Your task to perform on an android device: choose inbox layout in the gmail app Image 0: 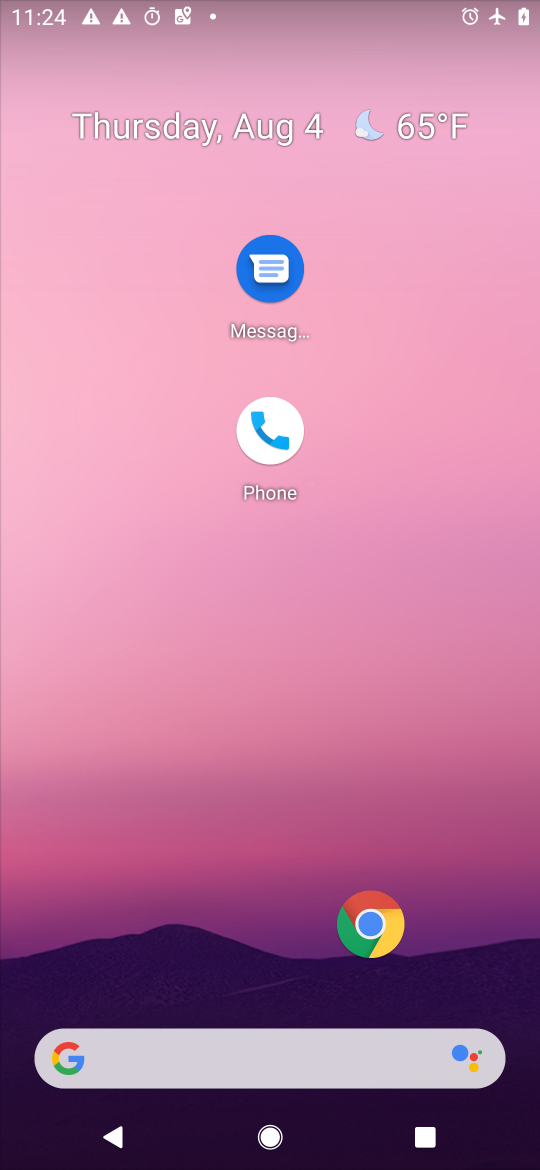
Step 0: click (358, 490)
Your task to perform on an android device: choose inbox layout in the gmail app Image 1: 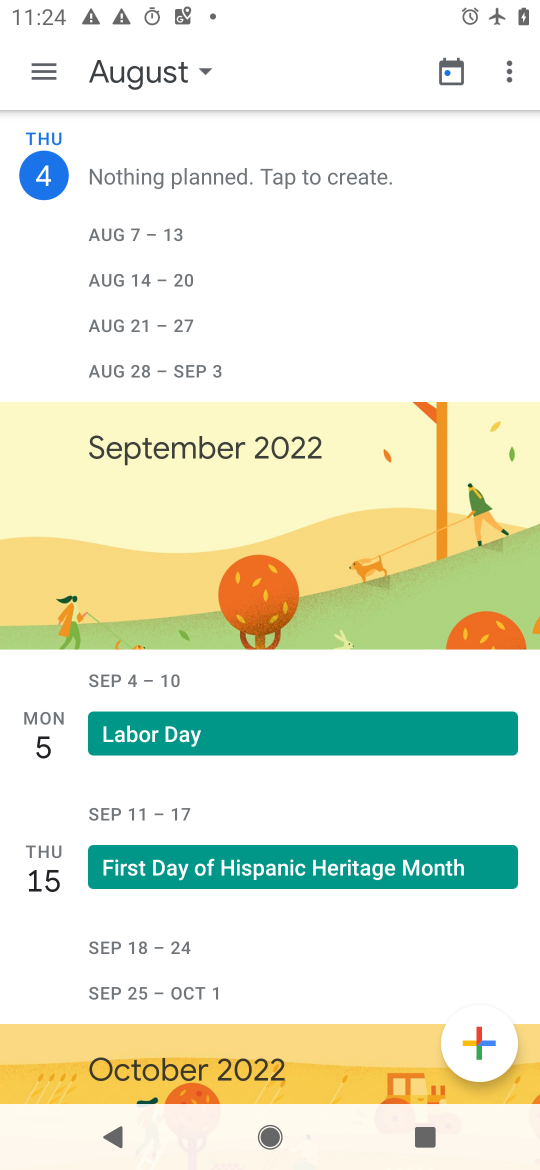
Step 1: drag from (356, 916) to (342, 360)
Your task to perform on an android device: choose inbox layout in the gmail app Image 2: 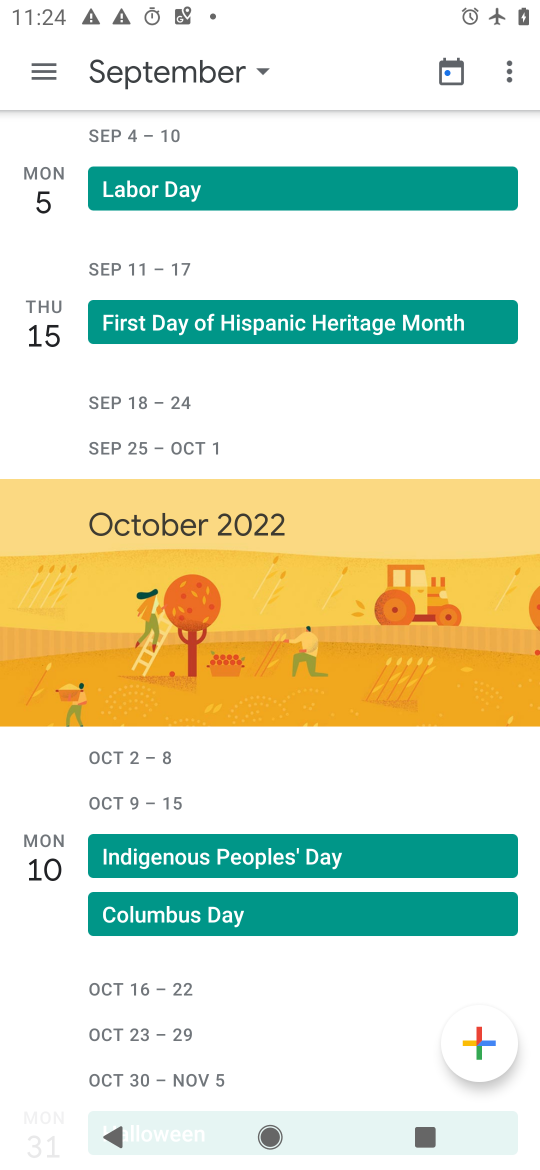
Step 2: drag from (262, 865) to (271, 362)
Your task to perform on an android device: choose inbox layout in the gmail app Image 3: 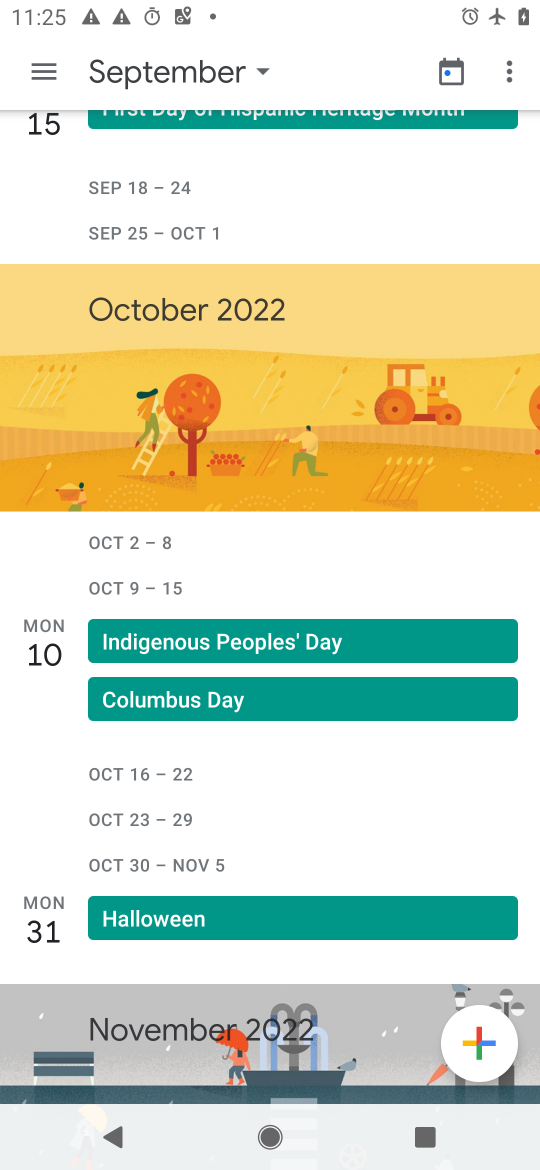
Step 3: drag from (287, 884) to (370, 236)
Your task to perform on an android device: choose inbox layout in the gmail app Image 4: 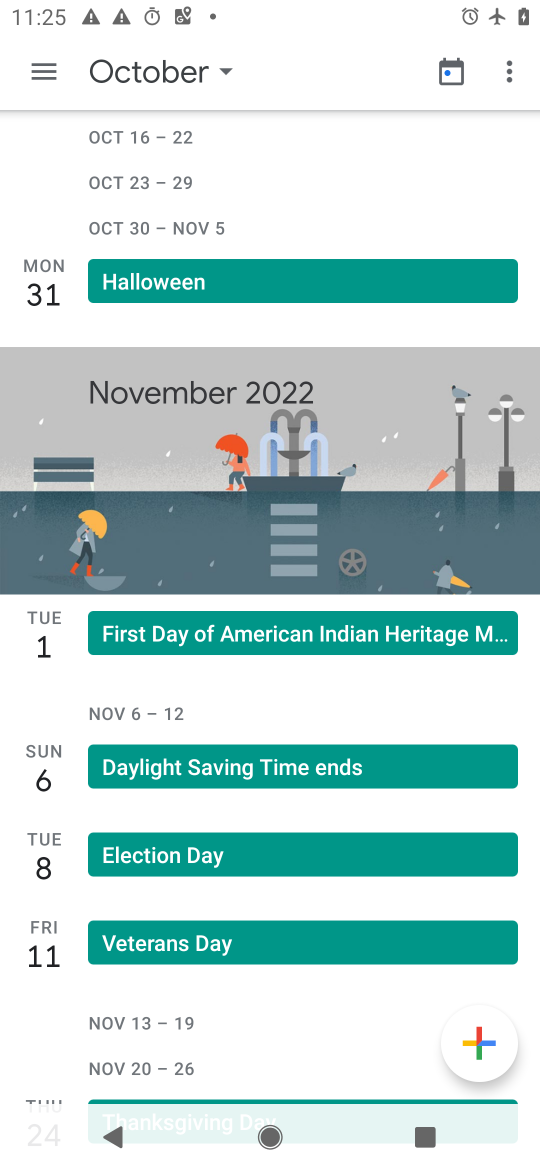
Step 4: press home button
Your task to perform on an android device: choose inbox layout in the gmail app Image 5: 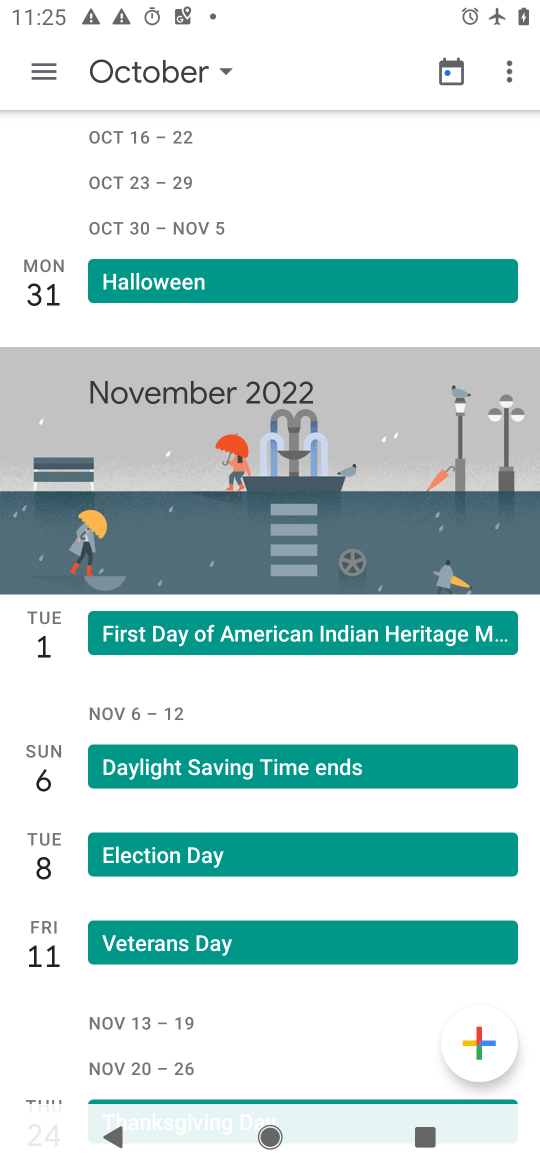
Step 5: press home button
Your task to perform on an android device: choose inbox layout in the gmail app Image 6: 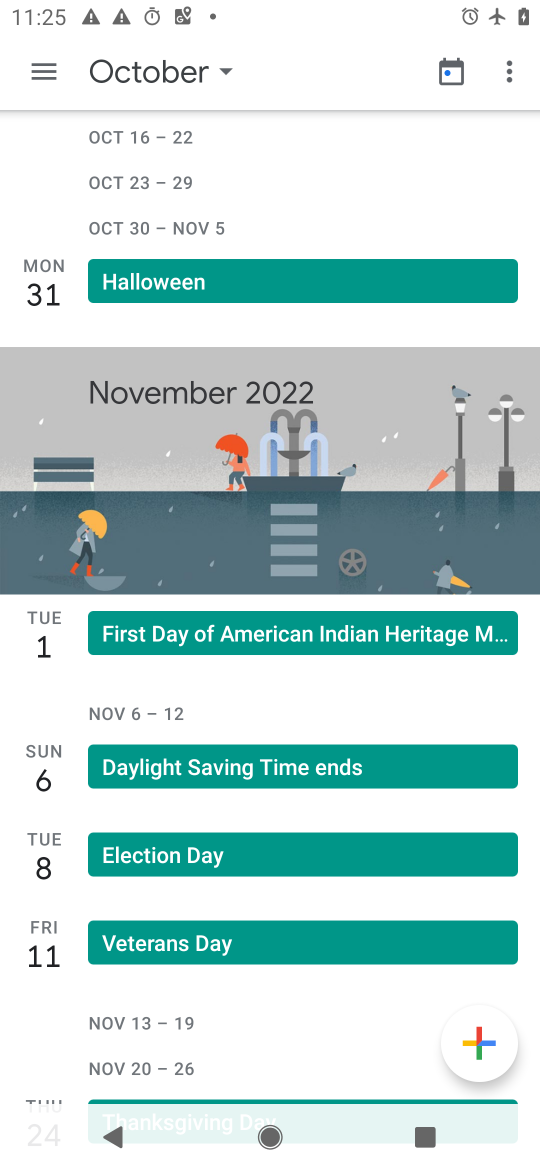
Step 6: click (335, 151)
Your task to perform on an android device: choose inbox layout in the gmail app Image 7: 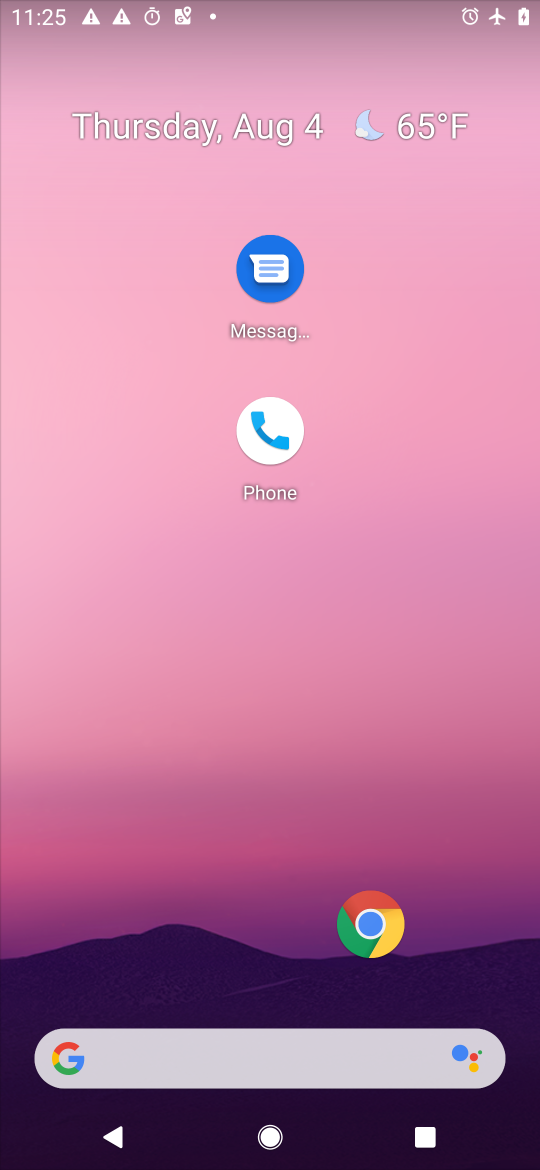
Step 7: drag from (250, 987) to (292, 317)
Your task to perform on an android device: choose inbox layout in the gmail app Image 8: 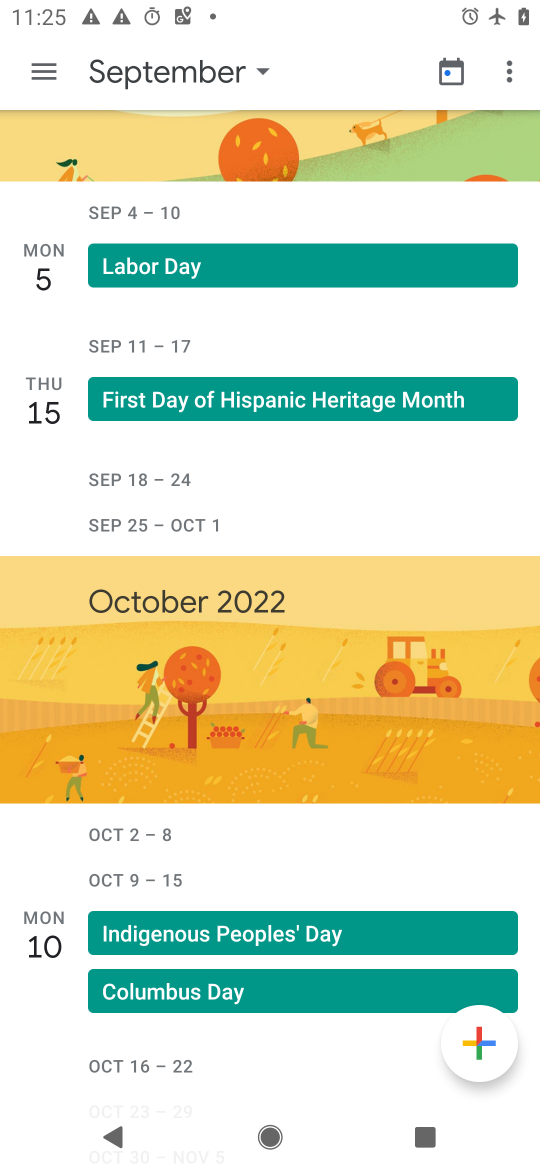
Step 8: press home button
Your task to perform on an android device: choose inbox layout in the gmail app Image 9: 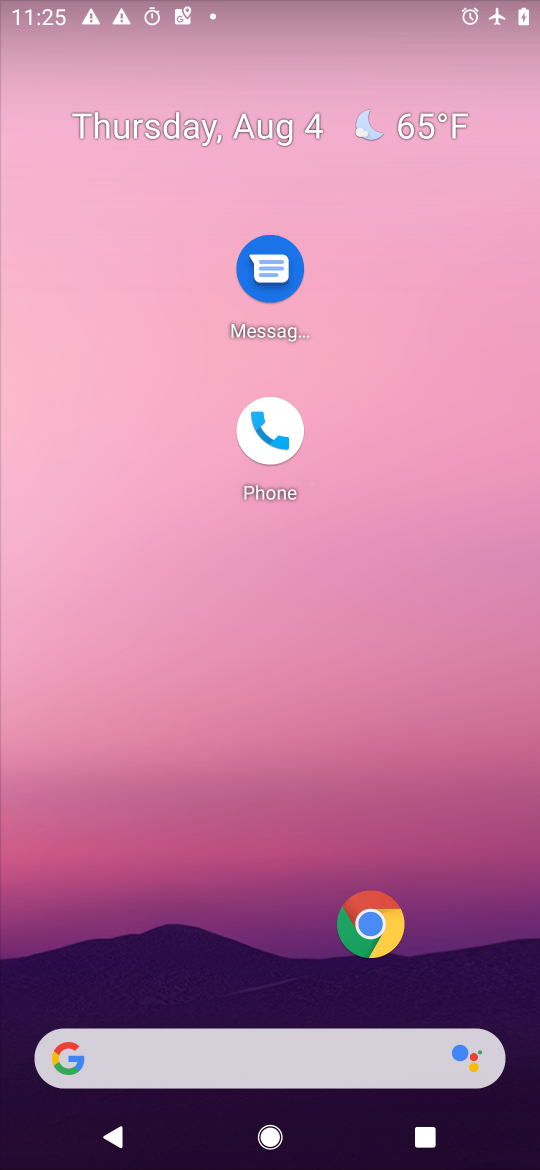
Step 9: drag from (257, 1007) to (422, 86)
Your task to perform on an android device: choose inbox layout in the gmail app Image 10: 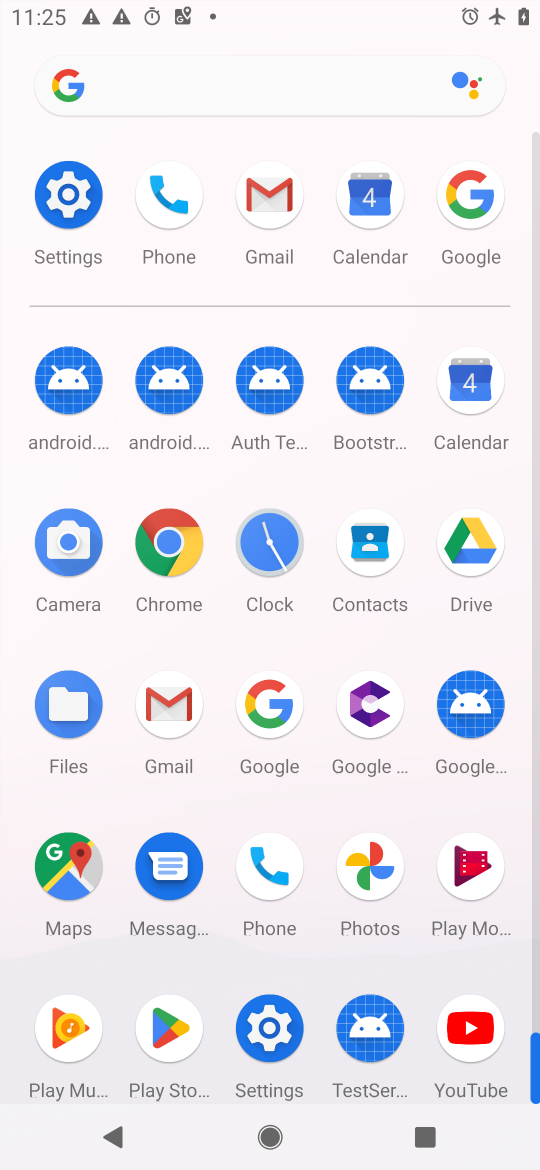
Step 10: click (257, 201)
Your task to perform on an android device: choose inbox layout in the gmail app Image 11: 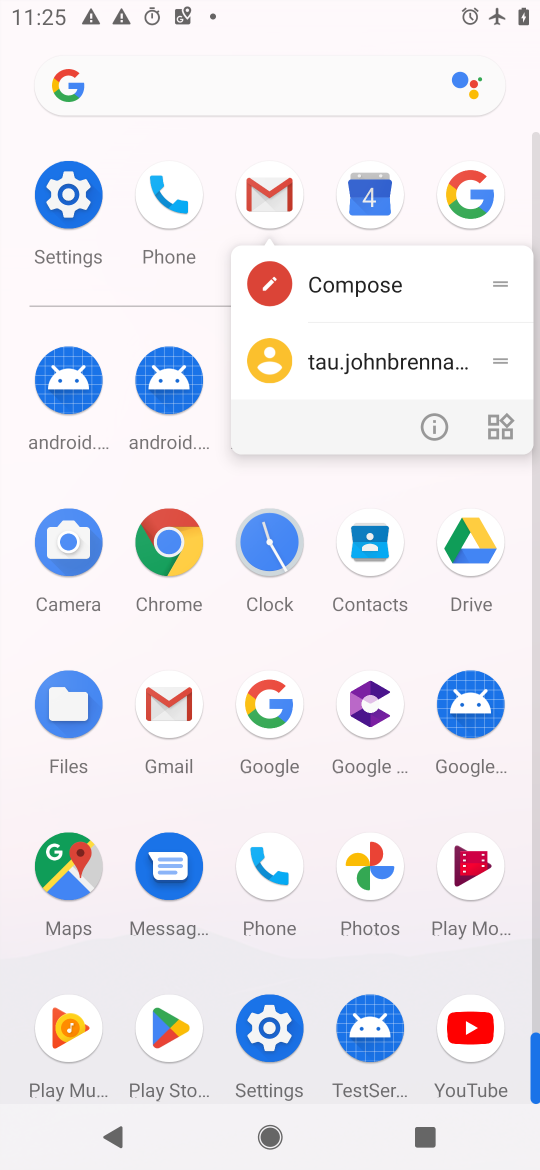
Step 11: click (428, 427)
Your task to perform on an android device: choose inbox layout in the gmail app Image 12: 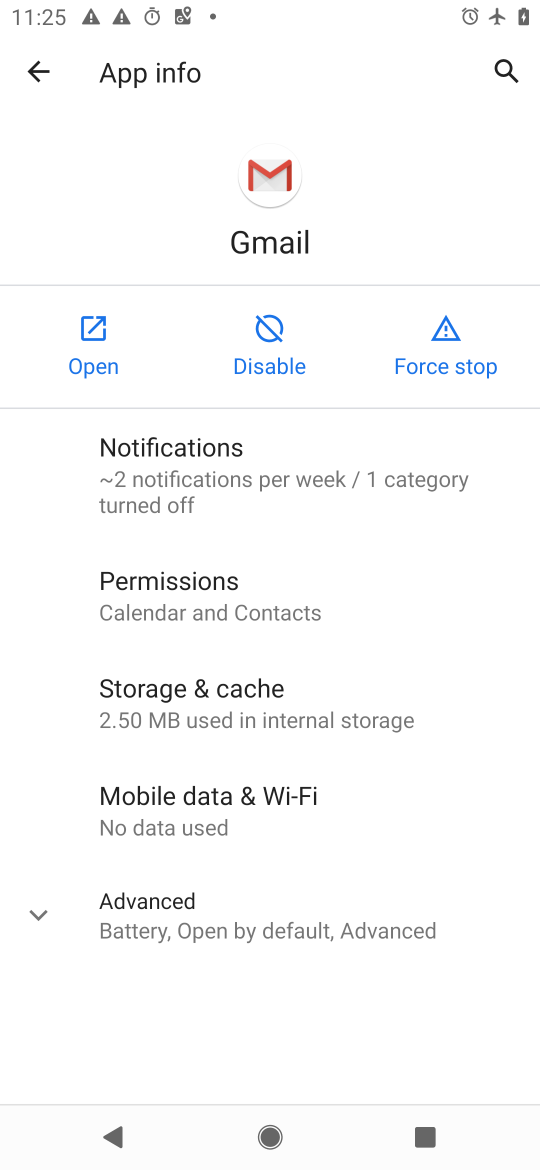
Step 12: click (88, 350)
Your task to perform on an android device: choose inbox layout in the gmail app Image 13: 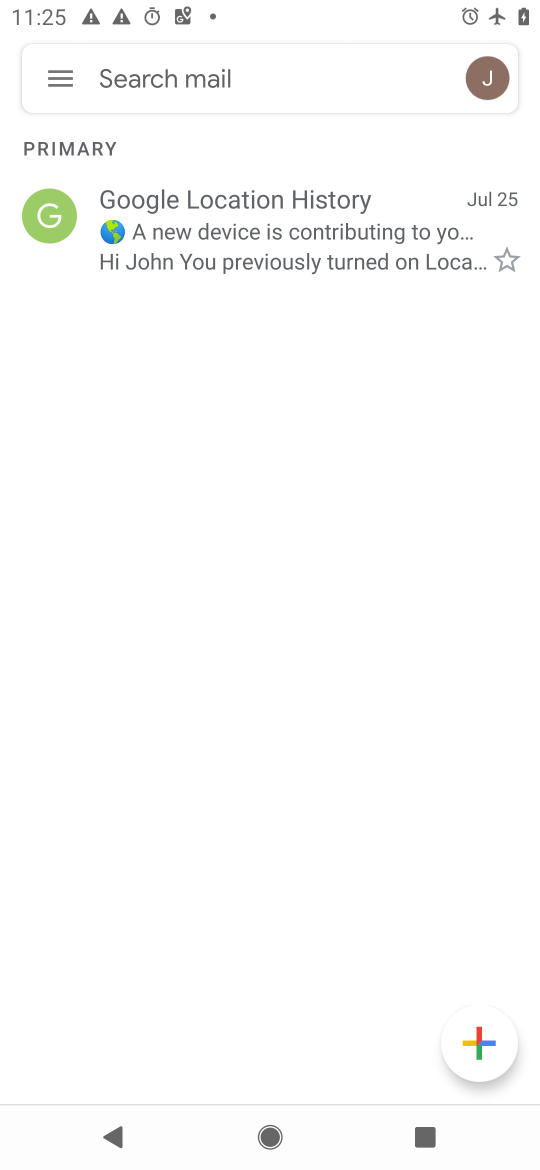
Step 13: click (54, 85)
Your task to perform on an android device: choose inbox layout in the gmail app Image 14: 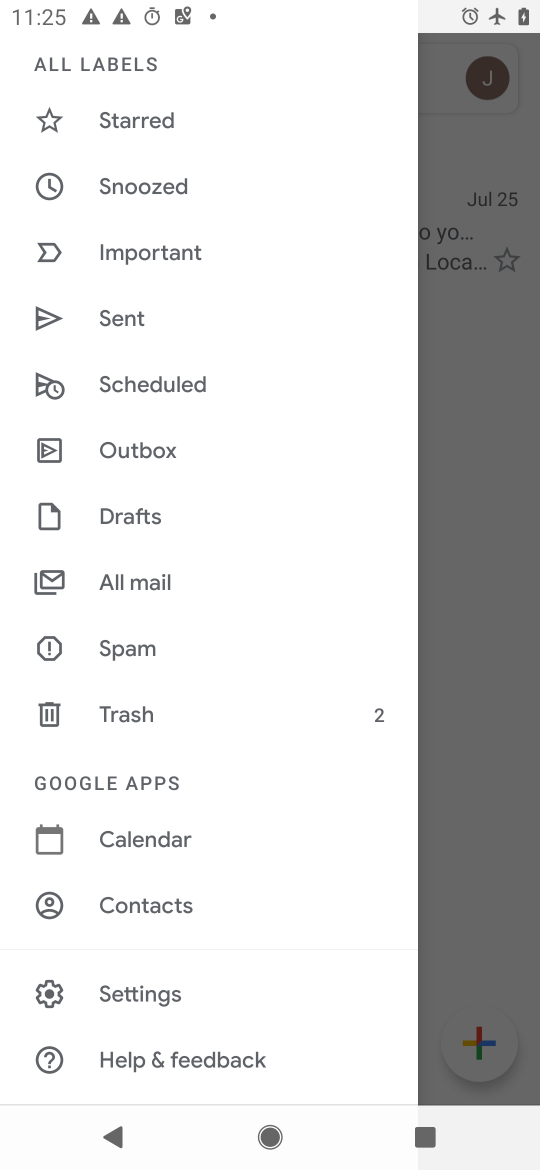
Step 14: drag from (191, 325) to (254, 1127)
Your task to perform on an android device: choose inbox layout in the gmail app Image 15: 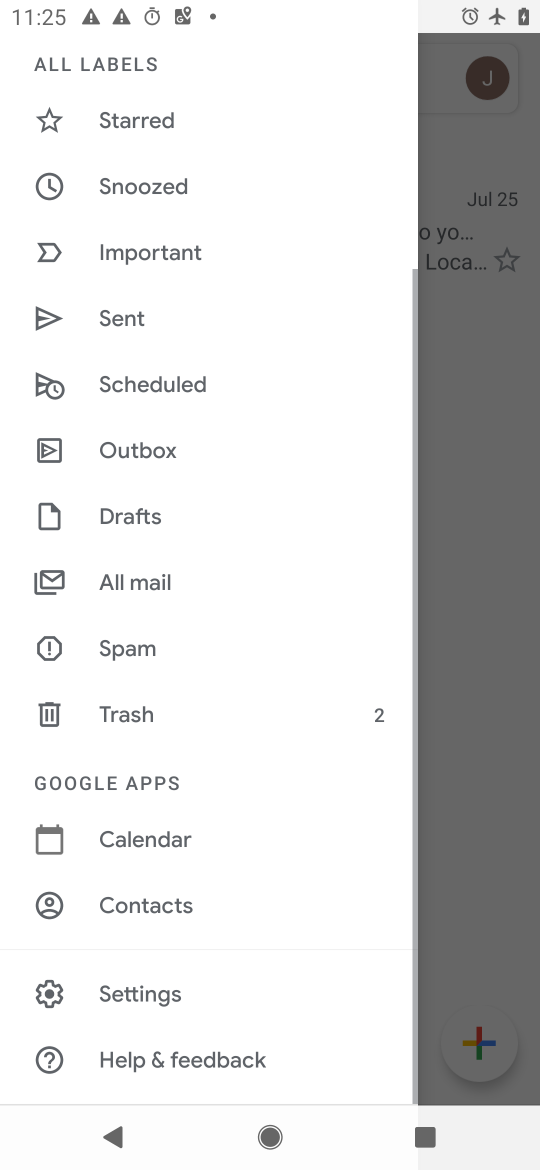
Step 15: drag from (179, 235) to (377, 958)
Your task to perform on an android device: choose inbox layout in the gmail app Image 16: 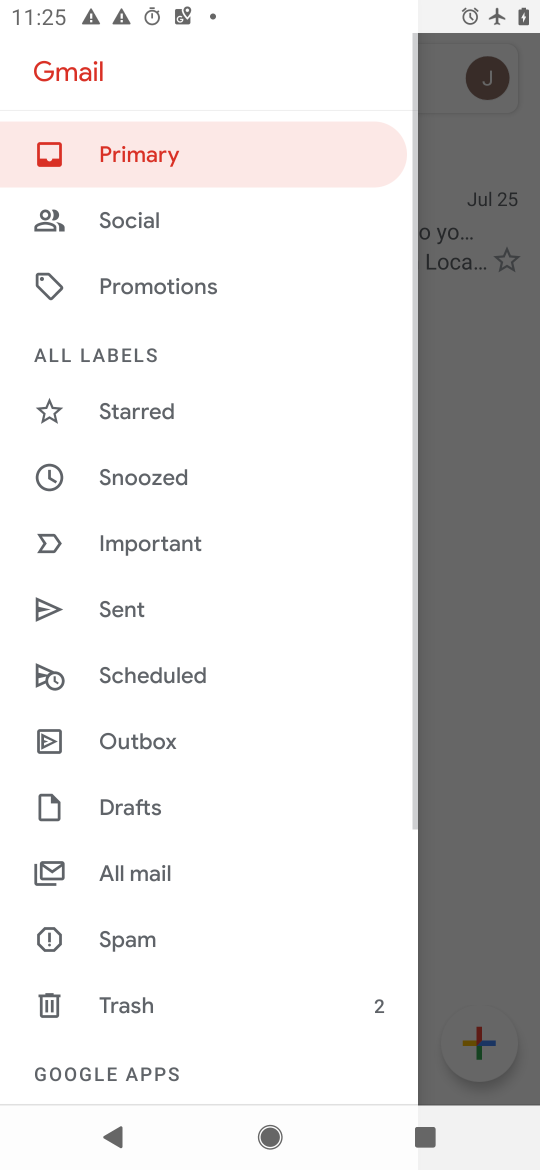
Step 16: click (113, 163)
Your task to perform on an android device: choose inbox layout in the gmail app Image 17: 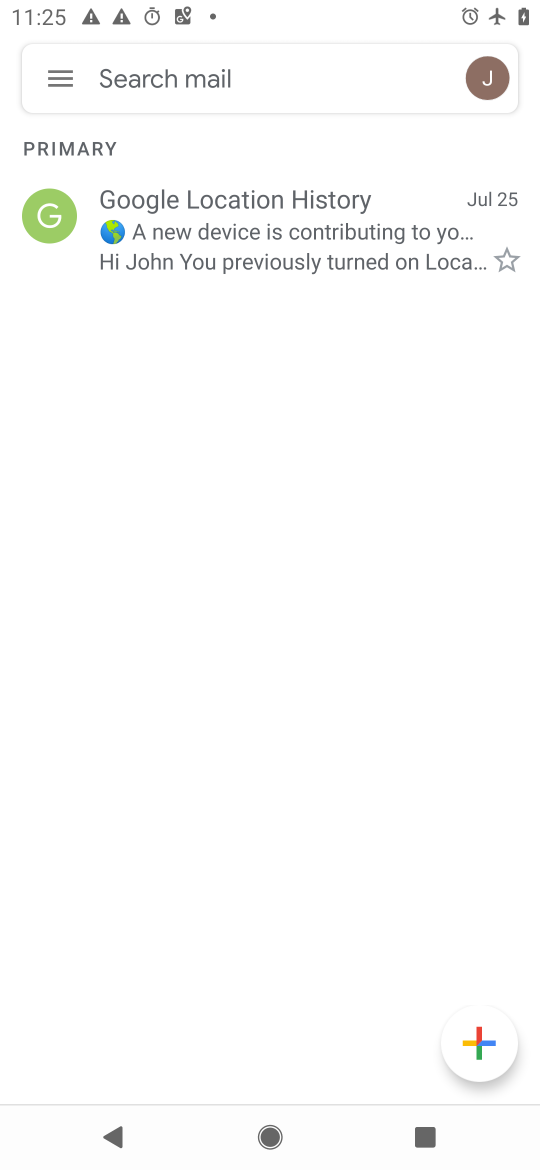
Step 17: click (54, 66)
Your task to perform on an android device: choose inbox layout in the gmail app Image 18: 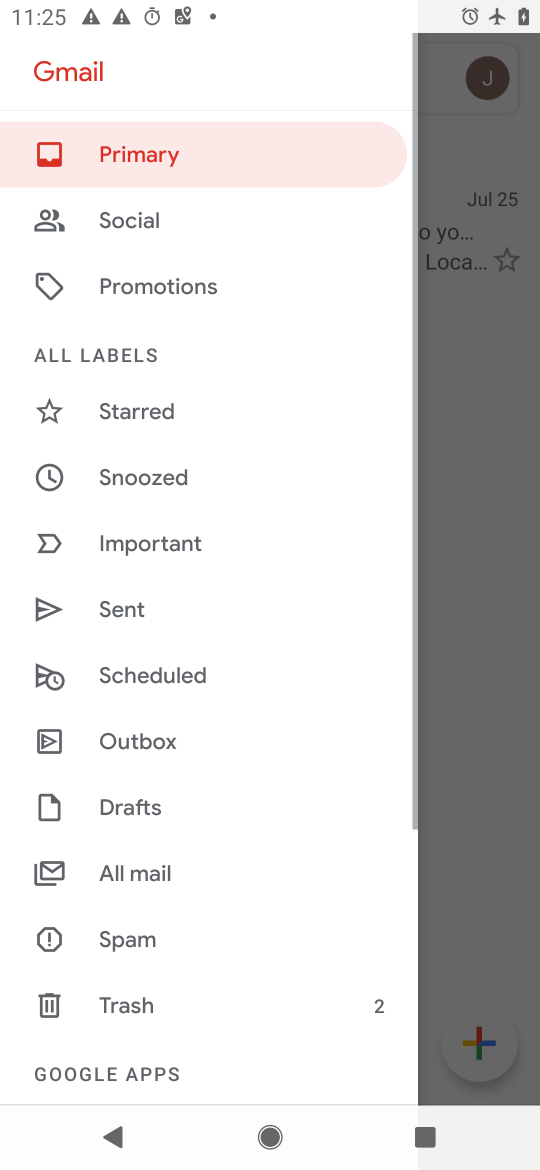
Step 18: click (109, 158)
Your task to perform on an android device: choose inbox layout in the gmail app Image 19: 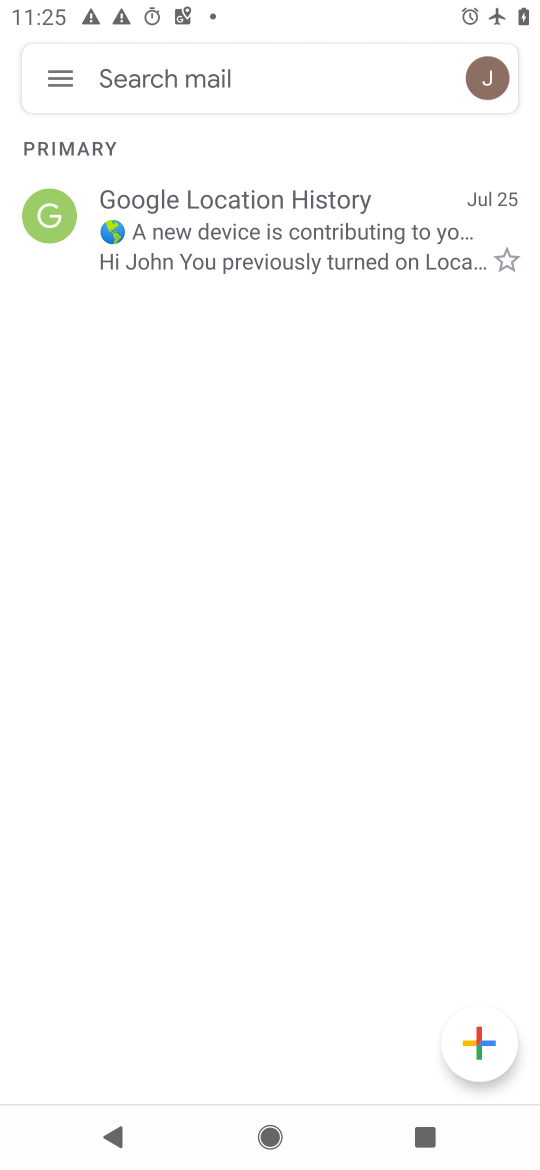
Step 19: task complete